Your task to perform on an android device: Clear the shopping cart on amazon.com. Search for "dell xps" on amazon.com, select the first entry, and add it to the cart. Image 0: 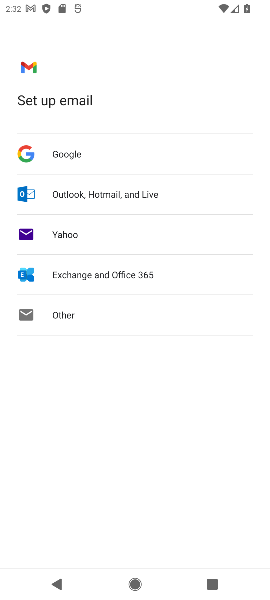
Step 0: press home button
Your task to perform on an android device: Clear the shopping cart on amazon.com. Search for "dell xps" on amazon.com, select the first entry, and add it to the cart. Image 1: 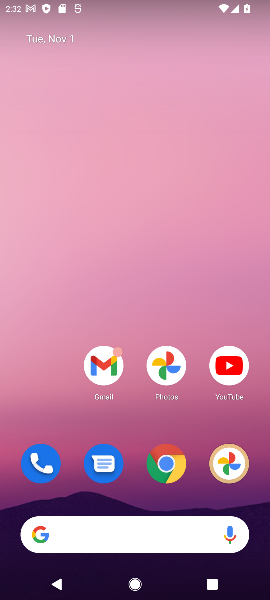
Step 1: drag from (137, 417) to (216, 206)
Your task to perform on an android device: Clear the shopping cart on amazon.com. Search for "dell xps" on amazon.com, select the first entry, and add it to the cart. Image 2: 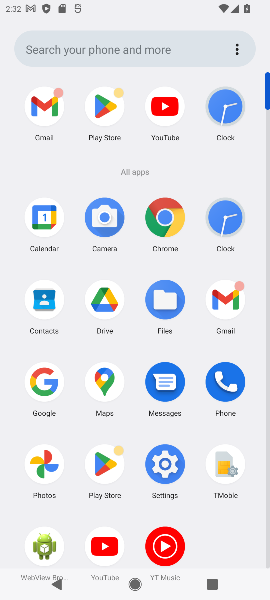
Step 2: click (161, 213)
Your task to perform on an android device: Clear the shopping cart on amazon.com. Search for "dell xps" on amazon.com, select the first entry, and add it to the cart. Image 3: 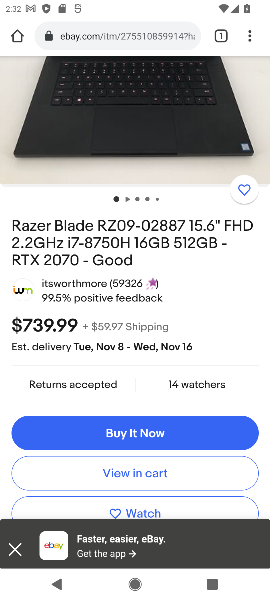
Step 3: click (154, 33)
Your task to perform on an android device: Clear the shopping cart on amazon.com. Search for "dell xps" on amazon.com, select the first entry, and add it to the cart. Image 4: 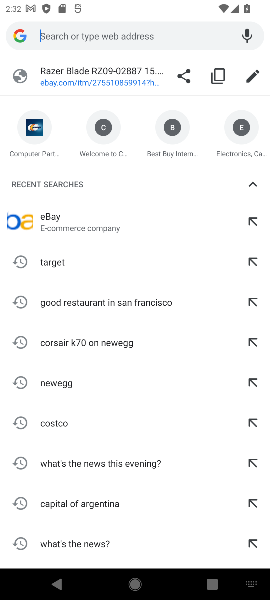
Step 4: type "amazon.com"
Your task to perform on an android device: Clear the shopping cart on amazon.com. Search for "dell xps" on amazon.com, select the first entry, and add it to the cart. Image 5: 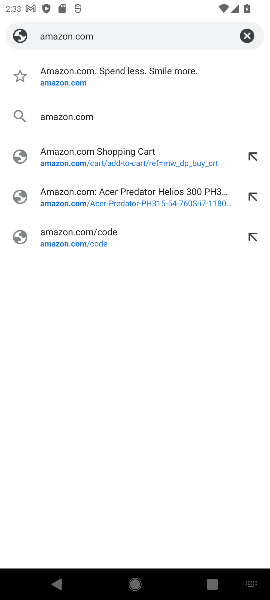
Step 5: press enter
Your task to perform on an android device: Clear the shopping cart on amazon.com. Search for "dell xps" on amazon.com, select the first entry, and add it to the cart. Image 6: 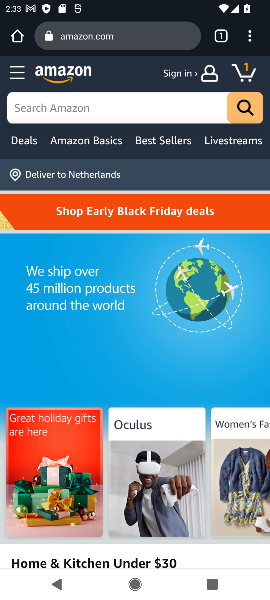
Step 6: click (247, 74)
Your task to perform on an android device: Clear the shopping cart on amazon.com. Search for "dell xps" on amazon.com, select the first entry, and add it to the cart. Image 7: 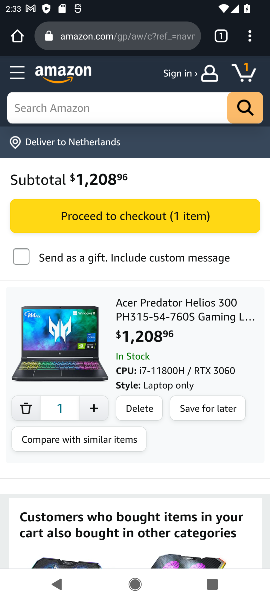
Step 7: click (24, 405)
Your task to perform on an android device: Clear the shopping cart on amazon.com. Search for "dell xps" on amazon.com, select the first entry, and add it to the cart. Image 8: 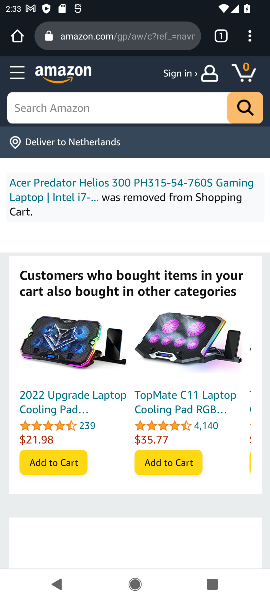
Step 8: click (130, 108)
Your task to perform on an android device: Clear the shopping cart on amazon.com. Search for "dell xps" on amazon.com, select the first entry, and add it to the cart. Image 9: 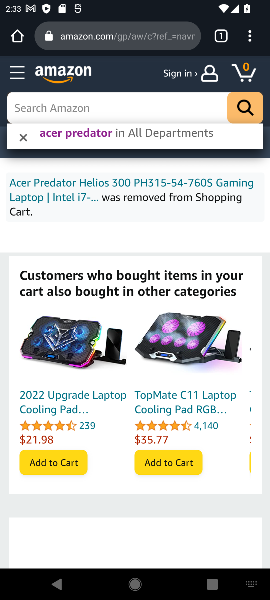
Step 9: type "dell xps"
Your task to perform on an android device: Clear the shopping cart on amazon.com. Search for "dell xps" on amazon.com, select the first entry, and add it to the cart. Image 10: 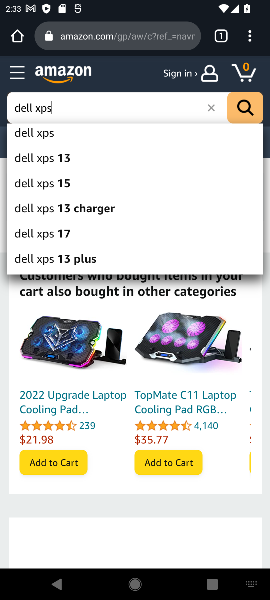
Step 10: press enter
Your task to perform on an android device: Clear the shopping cart on amazon.com. Search for "dell xps" on amazon.com, select the first entry, and add it to the cart. Image 11: 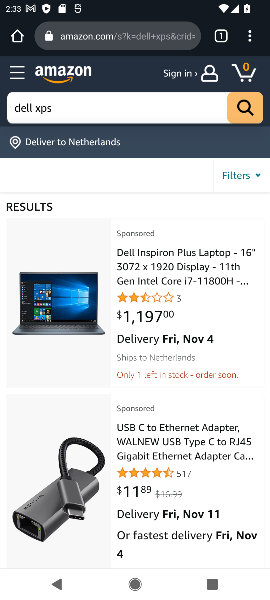
Step 11: drag from (126, 478) to (145, 169)
Your task to perform on an android device: Clear the shopping cart on amazon.com. Search for "dell xps" on amazon.com, select the first entry, and add it to the cart. Image 12: 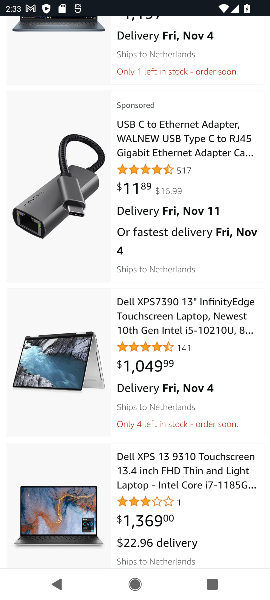
Step 12: click (143, 314)
Your task to perform on an android device: Clear the shopping cart on amazon.com. Search for "dell xps" on amazon.com, select the first entry, and add it to the cart. Image 13: 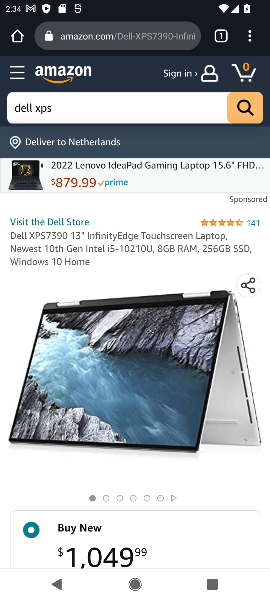
Step 13: drag from (103, 397) to (116, 119)
Your task to perform on an android device: Clear the shopping cart on amazon.com. Search for "dell xps" on amazon.com, select the first entry, and add it to the cart. Image 14: 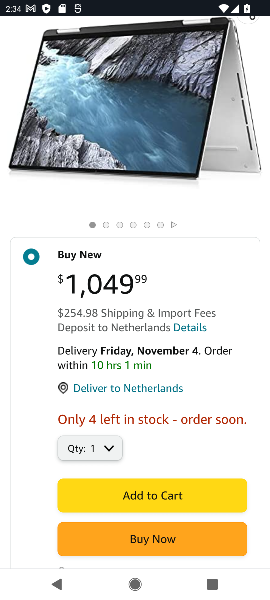
Step 14: click (166, 493)
Your task to perform on an android device: Clear the shopping cart on amazon.com. Search for "dell xps" on amazon.com, select the first entry, and add it to the cart. Image 15: 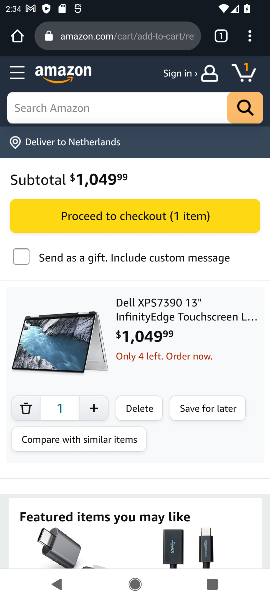
Step 15: task complete